Your task to perform on an android device: delete location history Image 0: 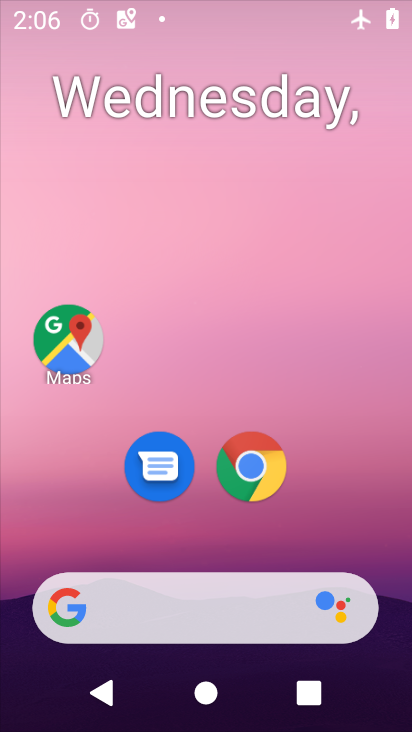
Step 0: drag from (272, 481) to (262, 123)
Your task to perform on an android device: delete location history Image 1: 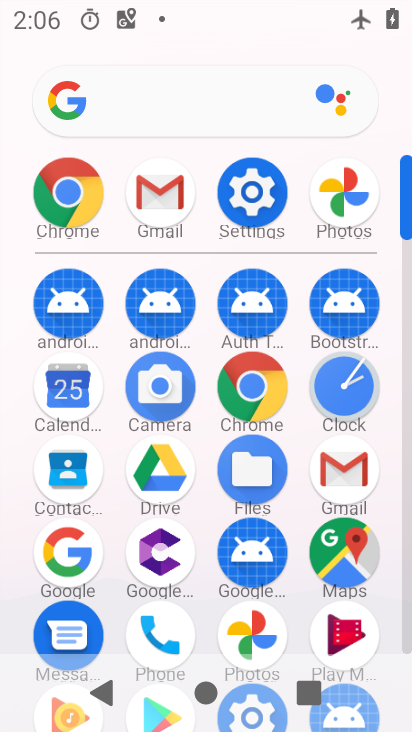
Step 1: click (254, 202)
Your task to perform on an android device: delete location history Image 2: 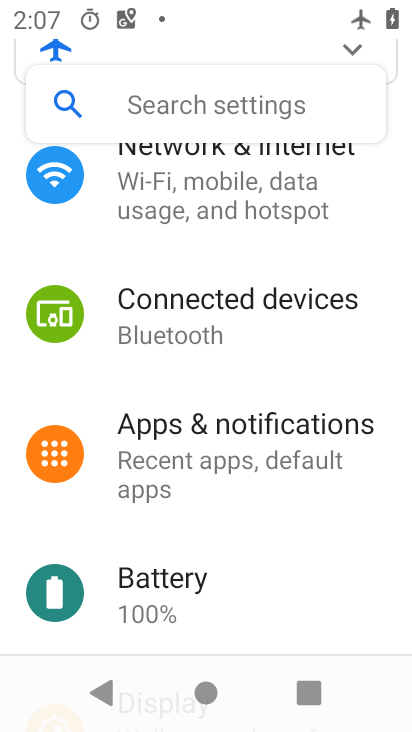
Step 2: drag from (204, 516) to (212, 255)
Your task to perform on an android device: delete location history Image 3: 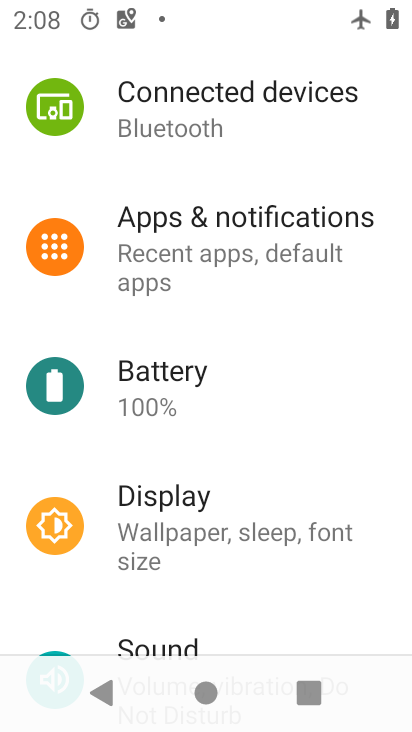
Step 3: drag from (194, 536) to (225, 277)
Your task to perform on an android device: delete location history Image 4: 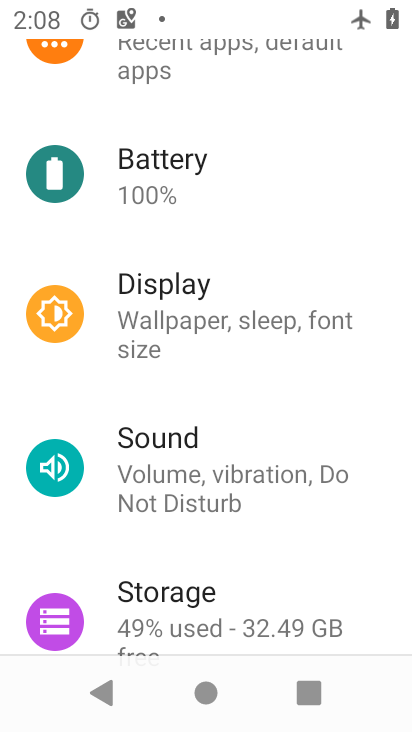
Step 4: drag from (178, 562) to (180, 275)
Your task to perform on an android device: delete location history Image 5: 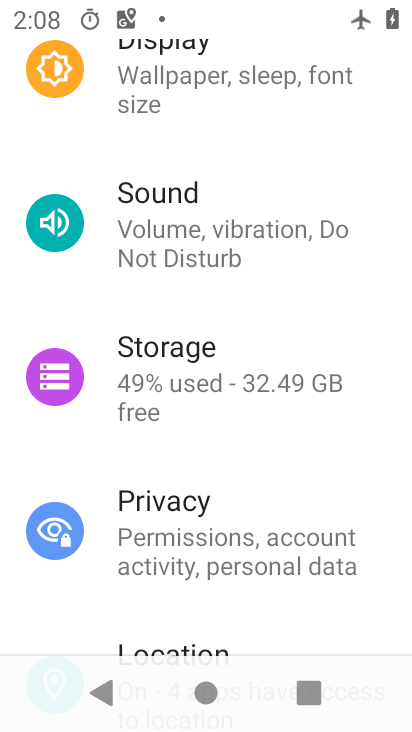
Step 5: drag from (208, 580) to (206, 303)
Your task to perform on an android device: delete location history Image 6: 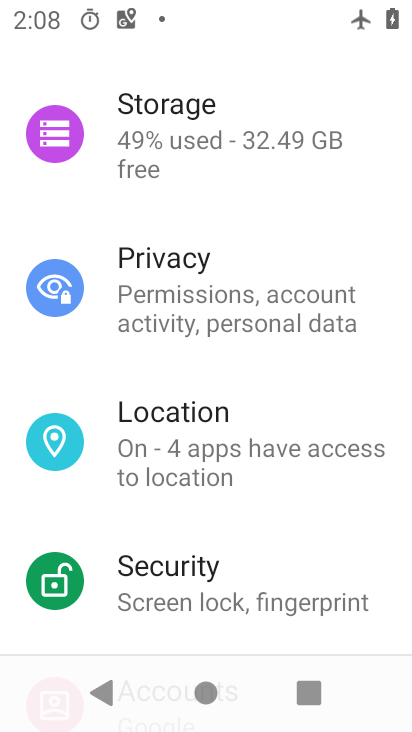
Step 6: click (221, 446)
Your task to perform on an android device: delete location history Image 7: 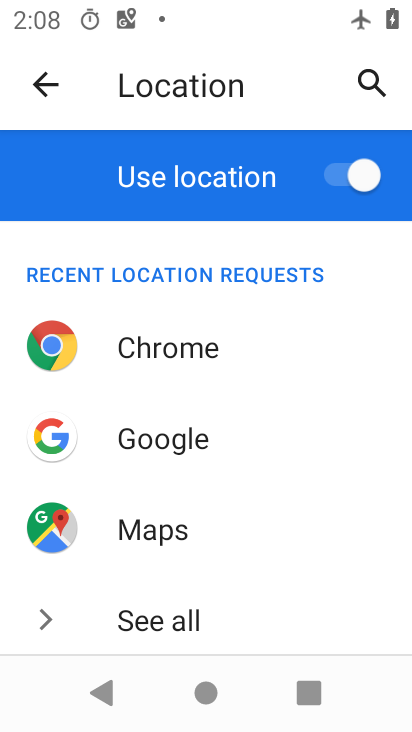
Step 7: drag from (242, 568) to (241, 327)
Your task to perform on an android device: delete location history Image 8: 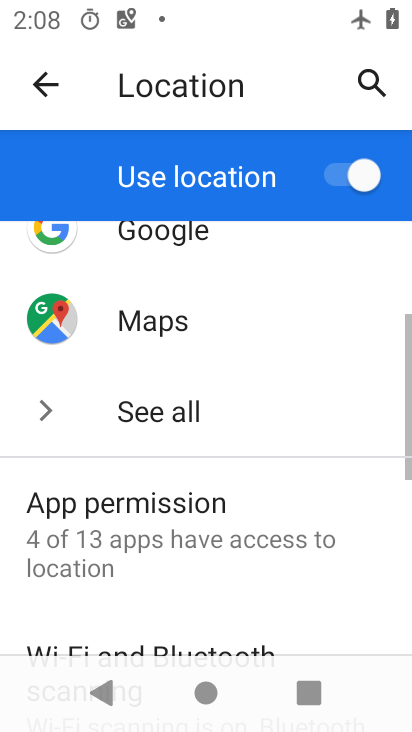
Step 8: drag from (212, 558) to (214, 320)
Your task to perform on an android device: delete location history Image 9: 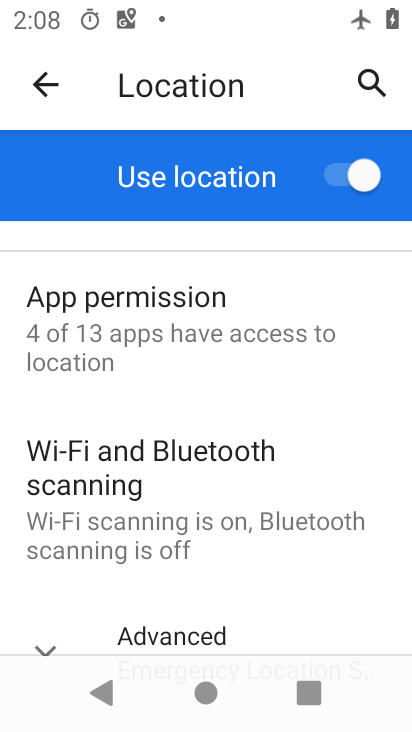
Step 9: drag from (222, 586) to (239, 306)
Your task to perform on an android device: delete location history Image 10: 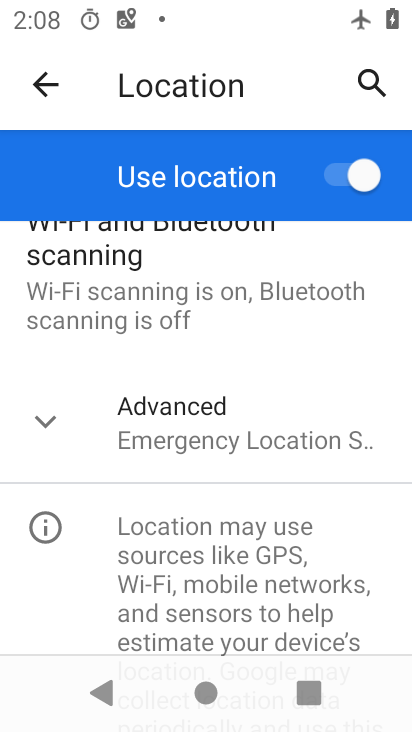
Step 10: click (246, 424)
Your task to perform on an android device: delete location history Image 11: 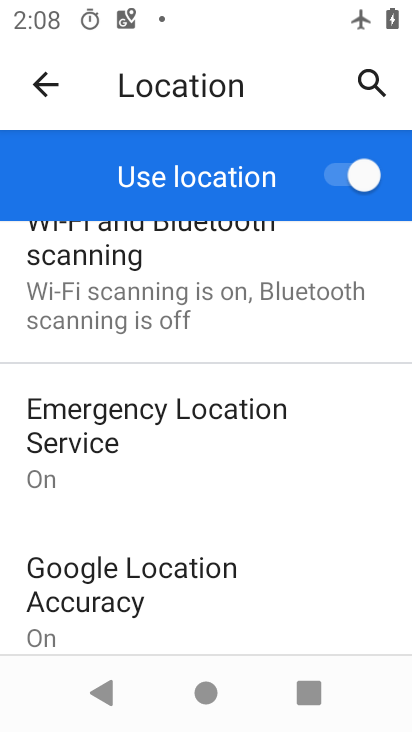
Step 11: task complete